Your task to perform on an android device: Clear all items from cart on ebay. Add "logitech g910" to the cart on ebay Image 0: 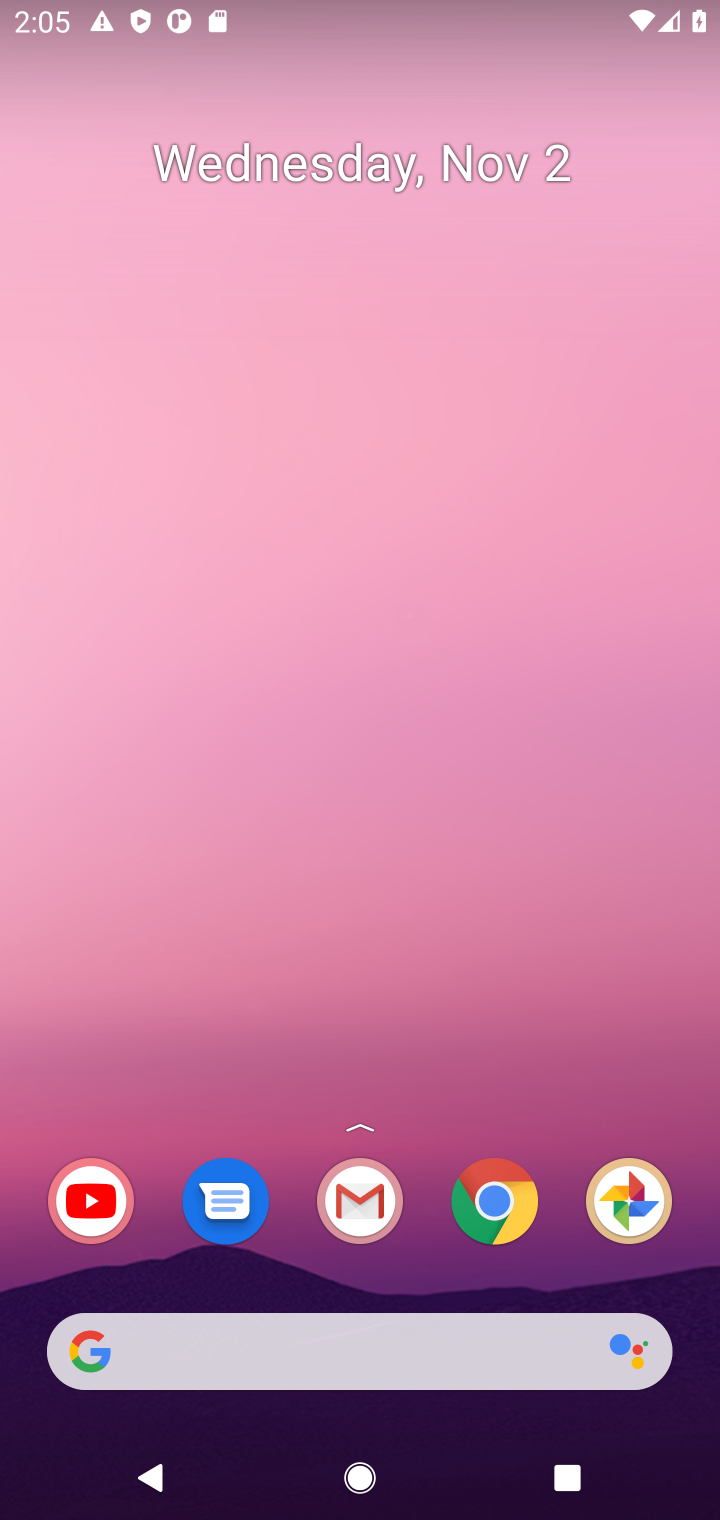
Step 0: click (501, 1193)
Your task to perform on an android device: Clear all items from cart on ebay. Add "logitech g910" to the cart on ebay Image 1: 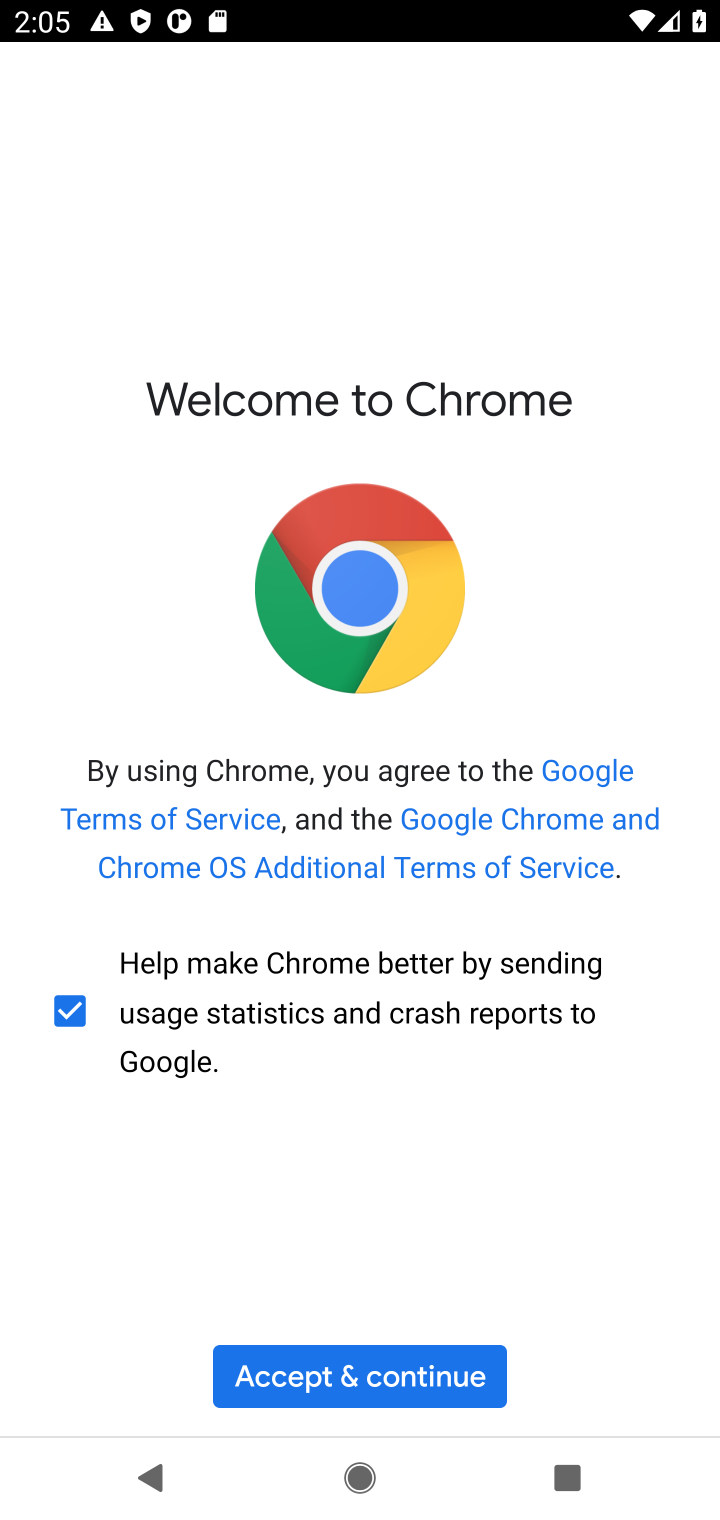
Step 1: click (394, 1374)
Your task to perform on an android device: Clear all items from cart on ebay. Add "logitech g910" to the cart on ebay Image 2: 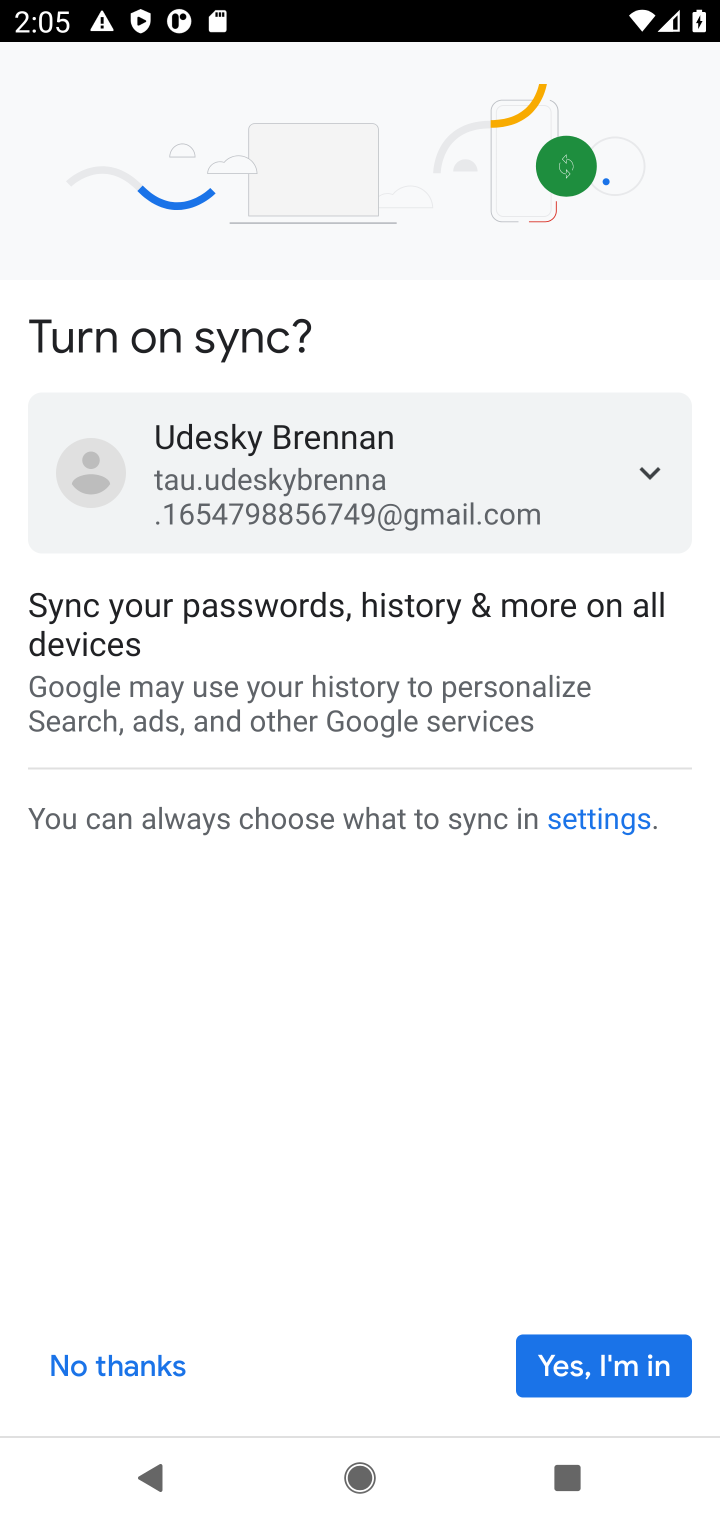
Step 2: click (629, 1357)
Your task to perform on an android device: Clear all items from cart on ebay. Add "logitech g910" to the cart on ebay Image 3: 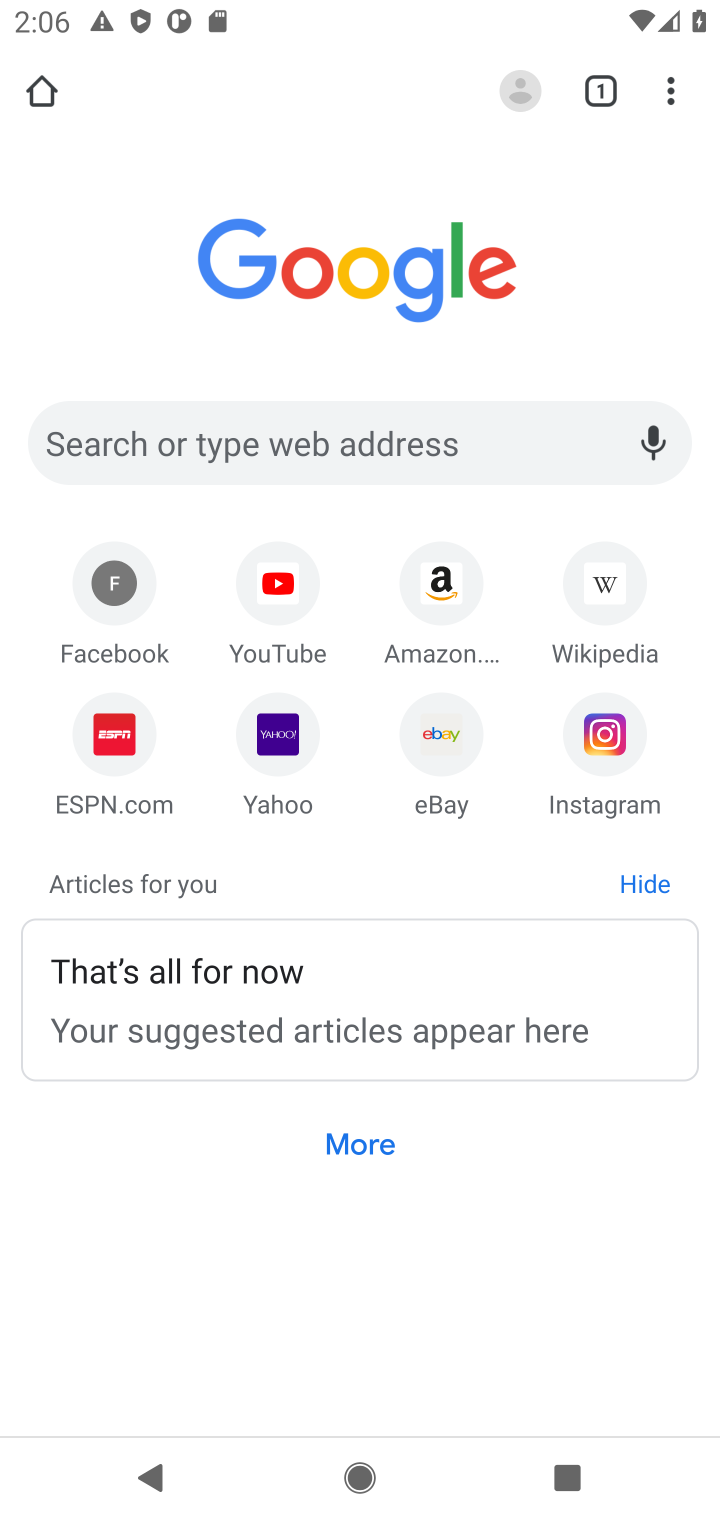
Step 3: click (352, 456)
Your task to perform on an android device: Clear all items from cart on ebay. Add "logitech g910" to the cart on ebay Image 4: 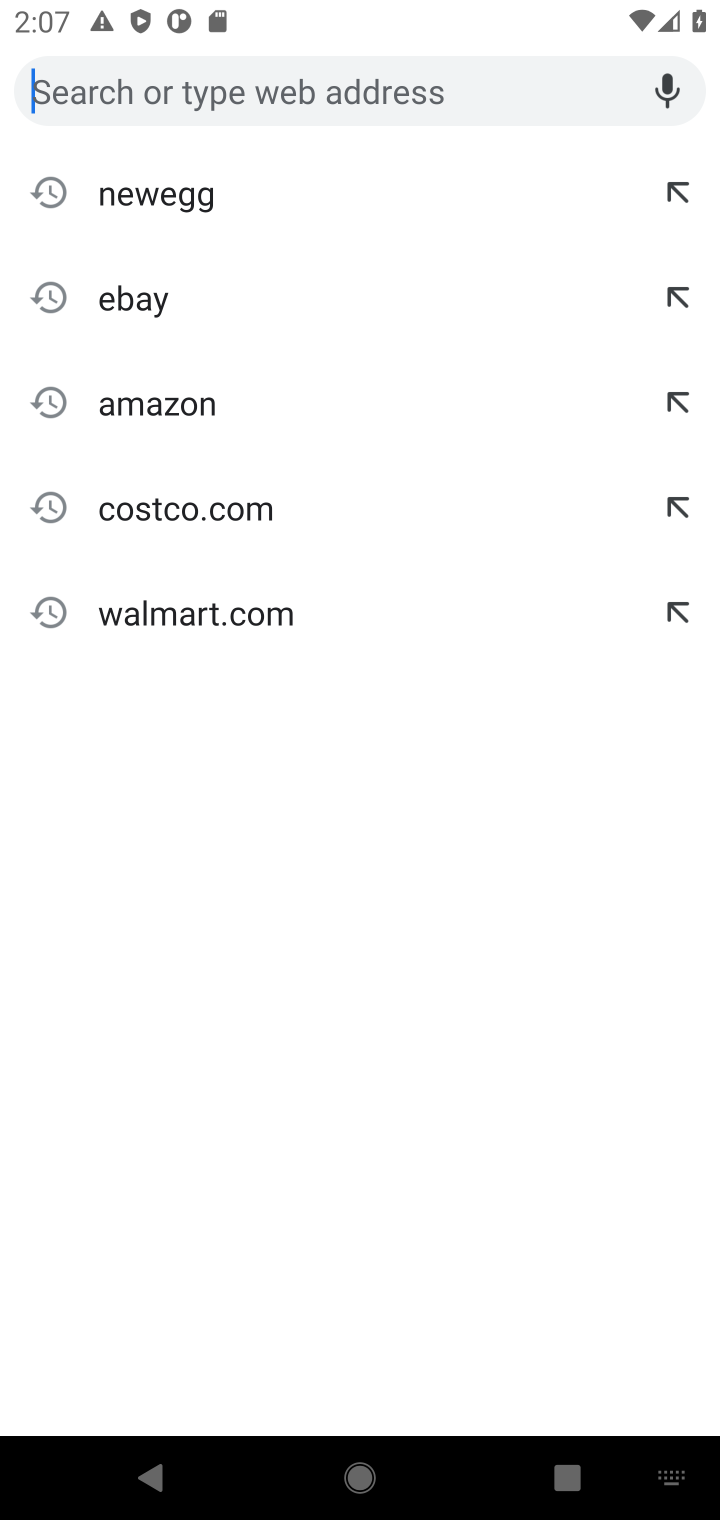
Step 4: click (123, 291)
Your task to perform on an android device: Clear all items from cart on ebay. Add "logitech g910" to the cart on ebay Image 5: 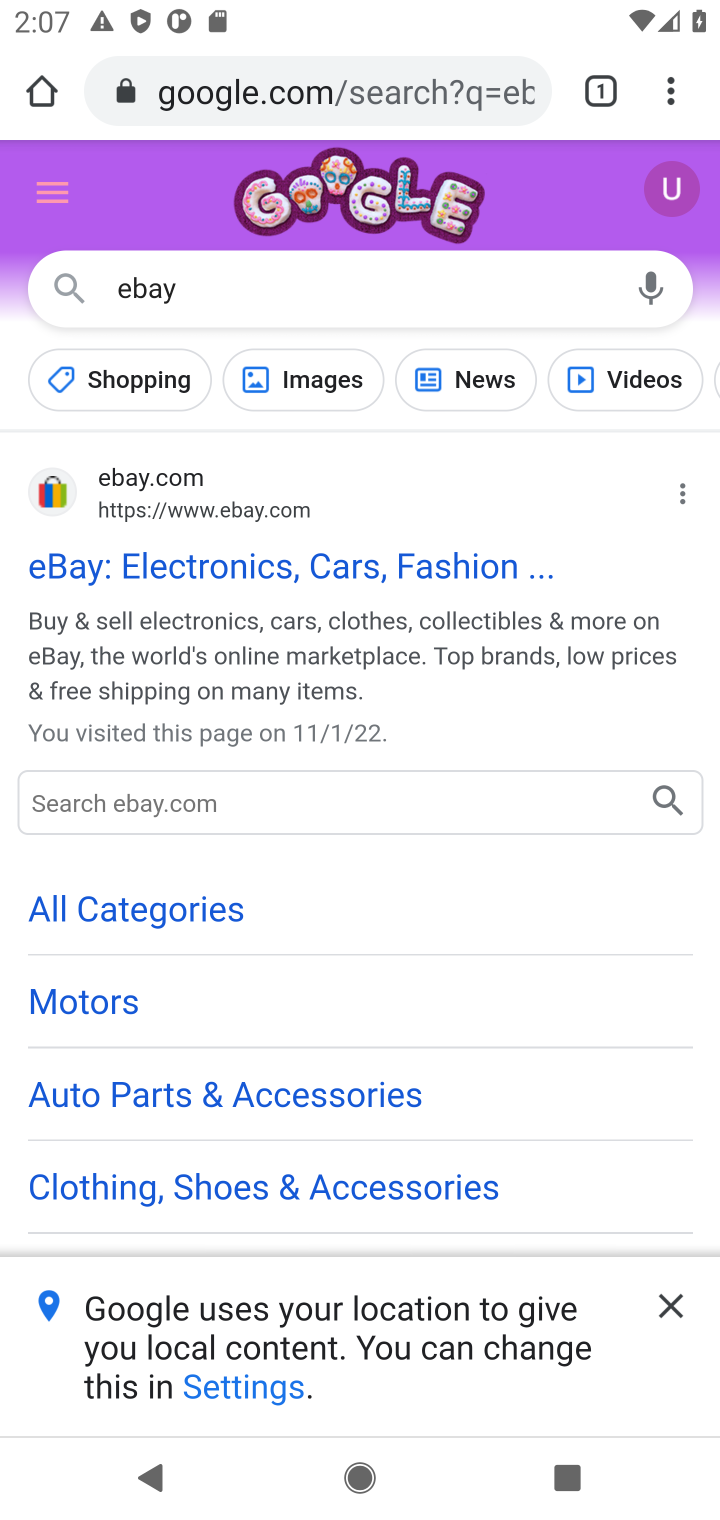
Step 5: click (330, 561)
Your task to perform on an android device: Clear all items from cart on ebay. Add "logitech g910" to the cart on ebay Image 6: 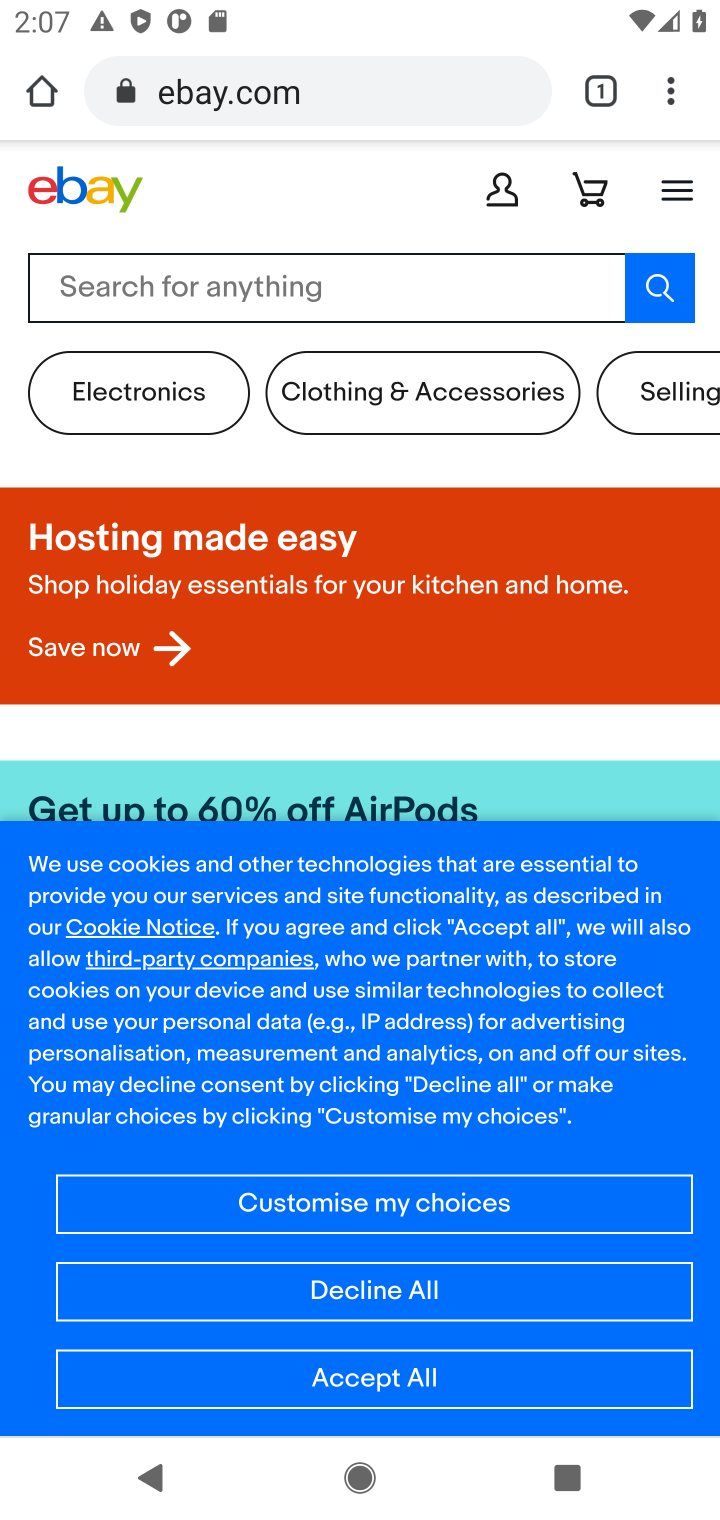
Step 6: click (376, 1379)
Your task to perform on an android device: Clear all items from cart on ebay. Add "logitech g910" to the cart on ebay Image 7: 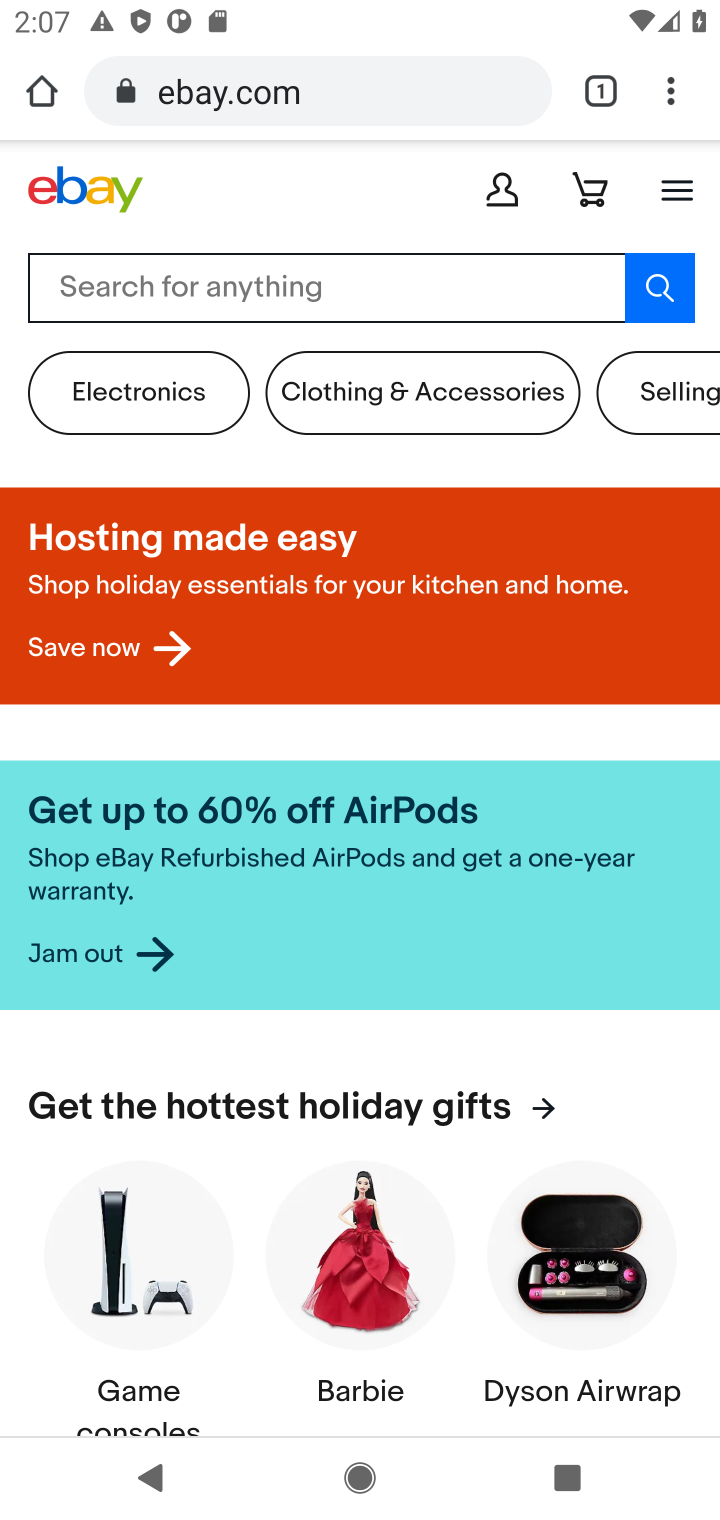
Step 7: click (370, 283)
Your task to perform on an android device: Clear all items from cart on ebay. Add "logitech g910" to the cart on ebay Image 8: 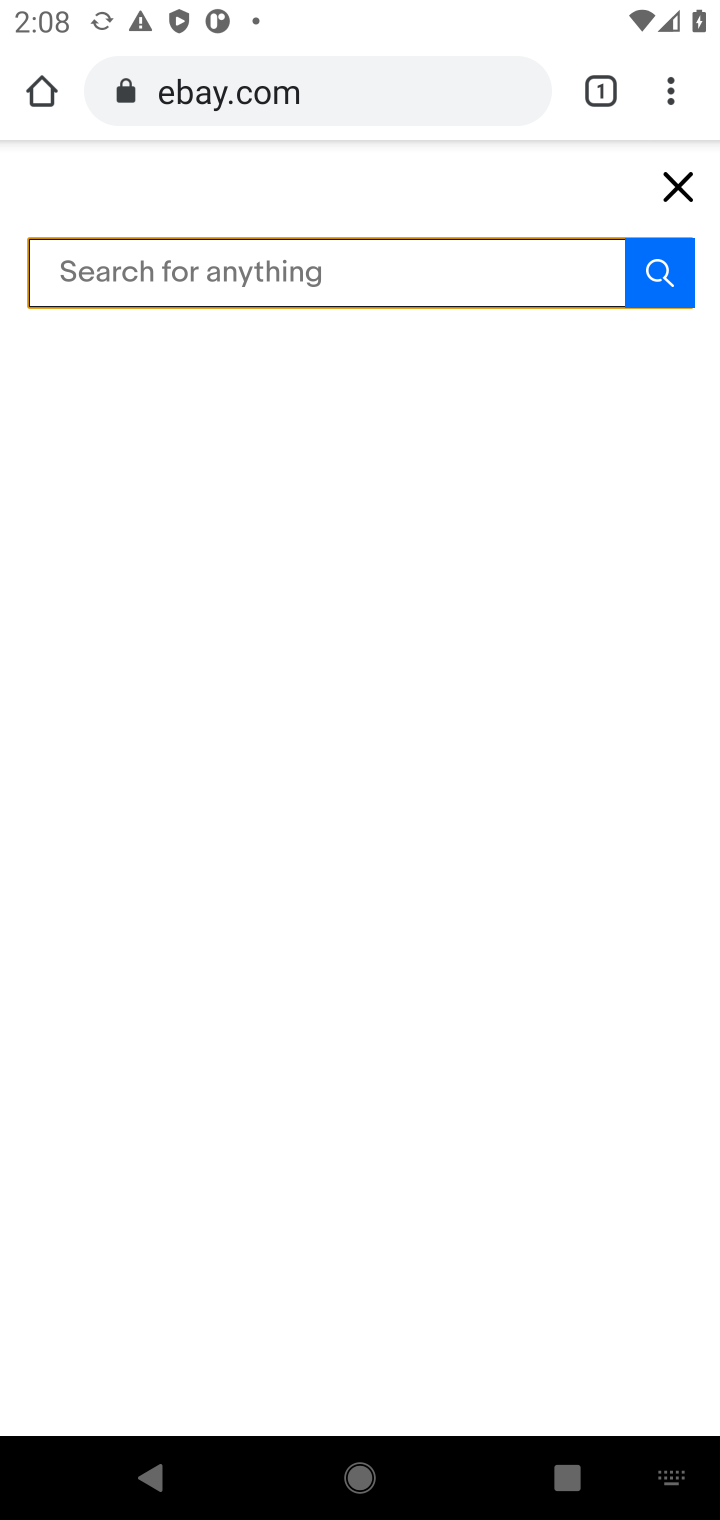
Step 8: press enter
Your task to perform on an android device: Clear all items from cart on ebay. Add "logitech g910" to the cart on ebay Image 9: 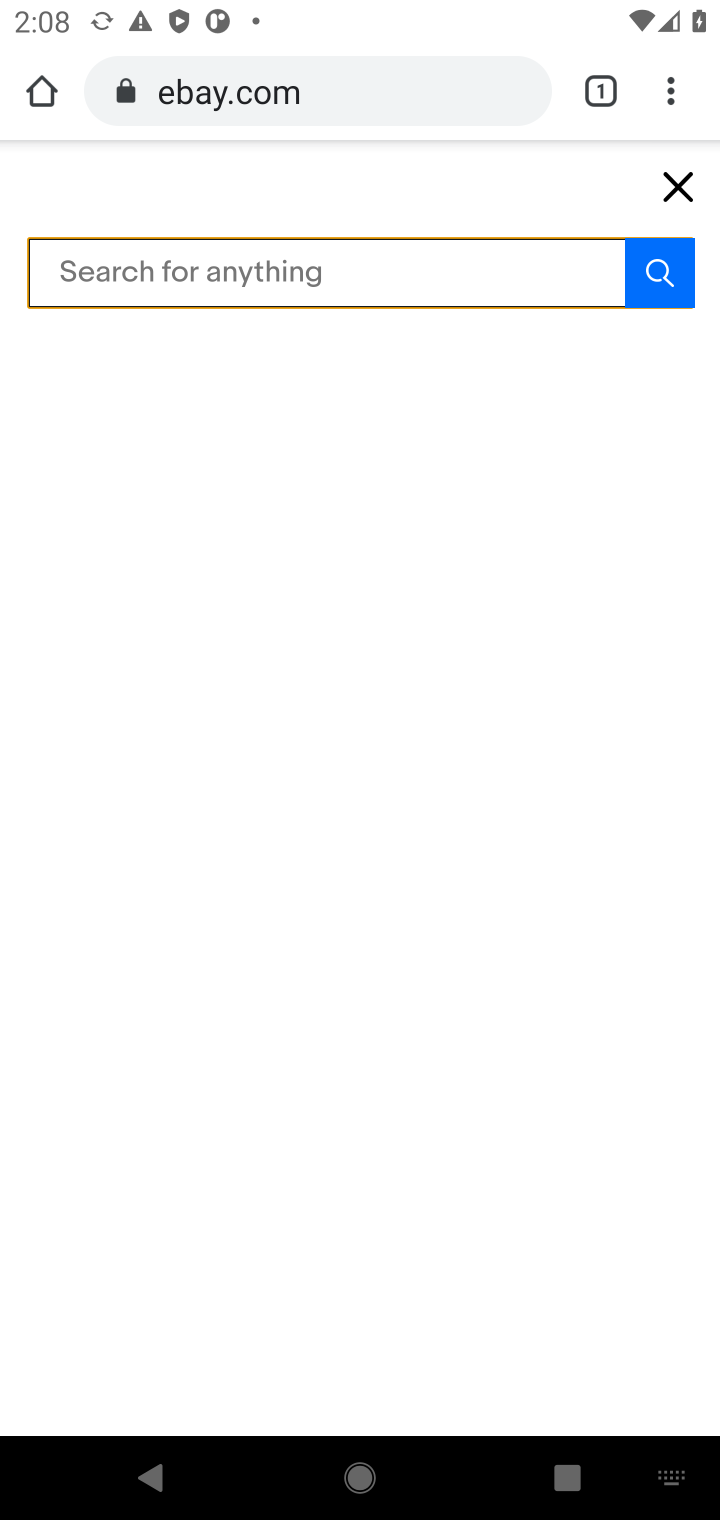
Step 9: type "logitech g910"
Your task to perform on an android device: Clear all items from cart on ebay. Add "logitech g910" to the cart on ebay Image 10: 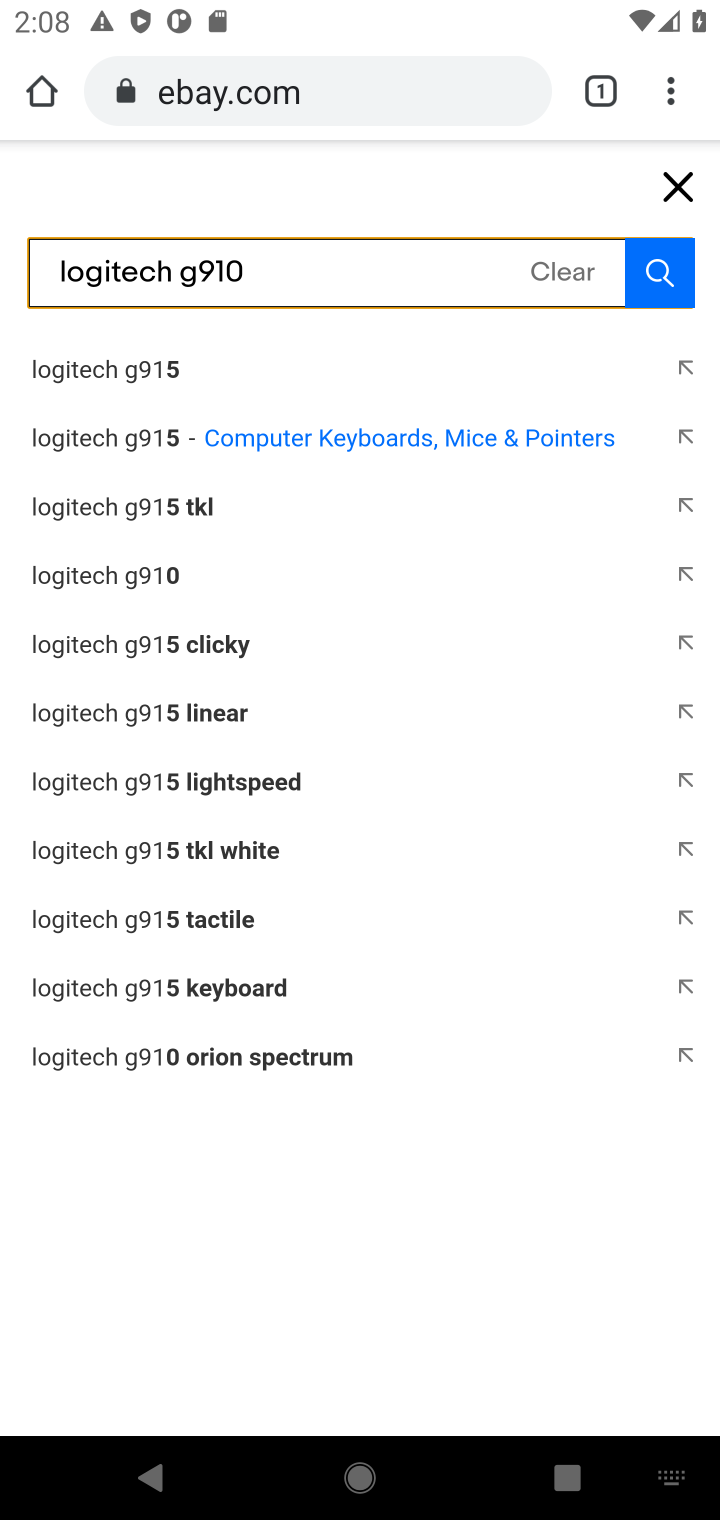
Step 10: press enter
Your task to perform on an android device: Clear all items from cart on ebay. Add "logitech g910" to the cart on ebay Image 11: 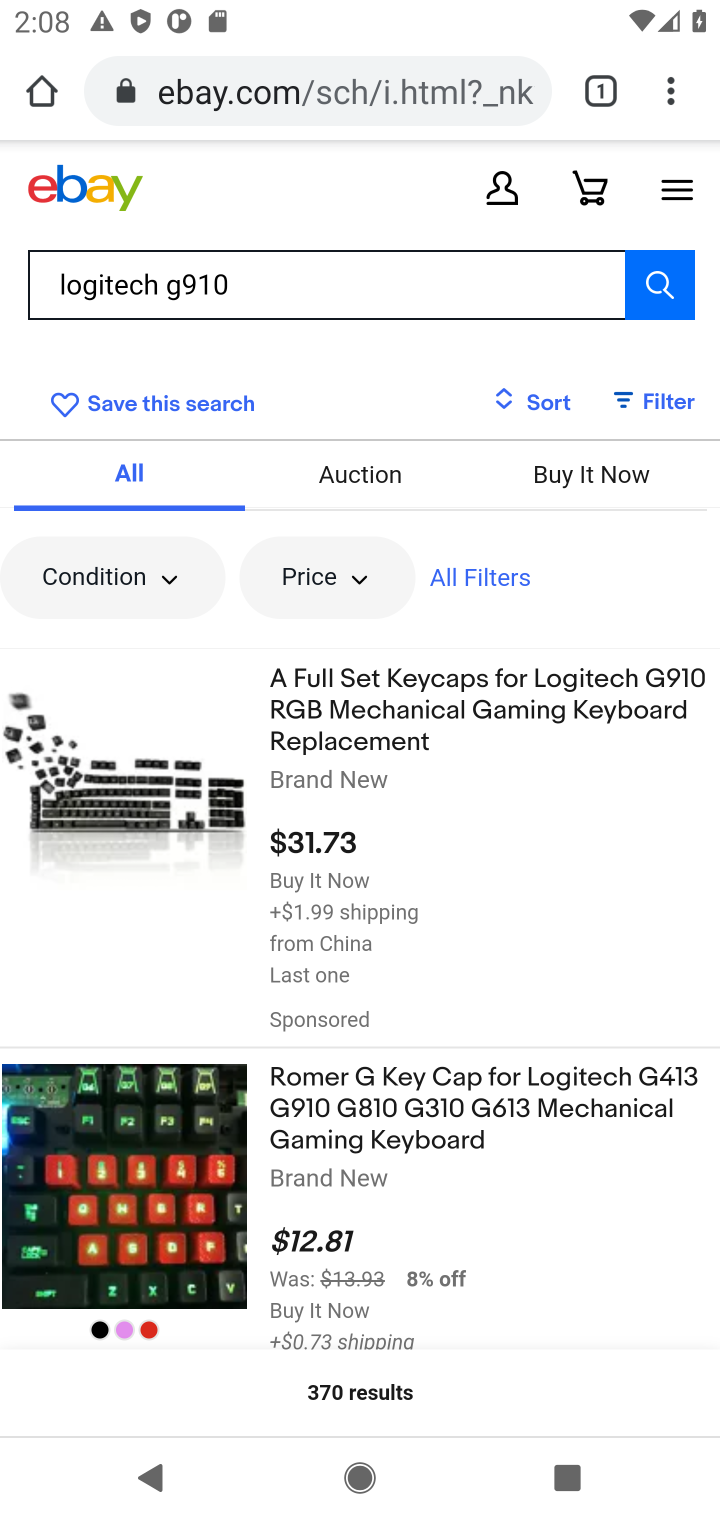
Step 11: click (446, 703)
Your task to perform on an android device: Clear all items from cart on ebay. Add "logitech g910" to the cart on ebay Image 12: 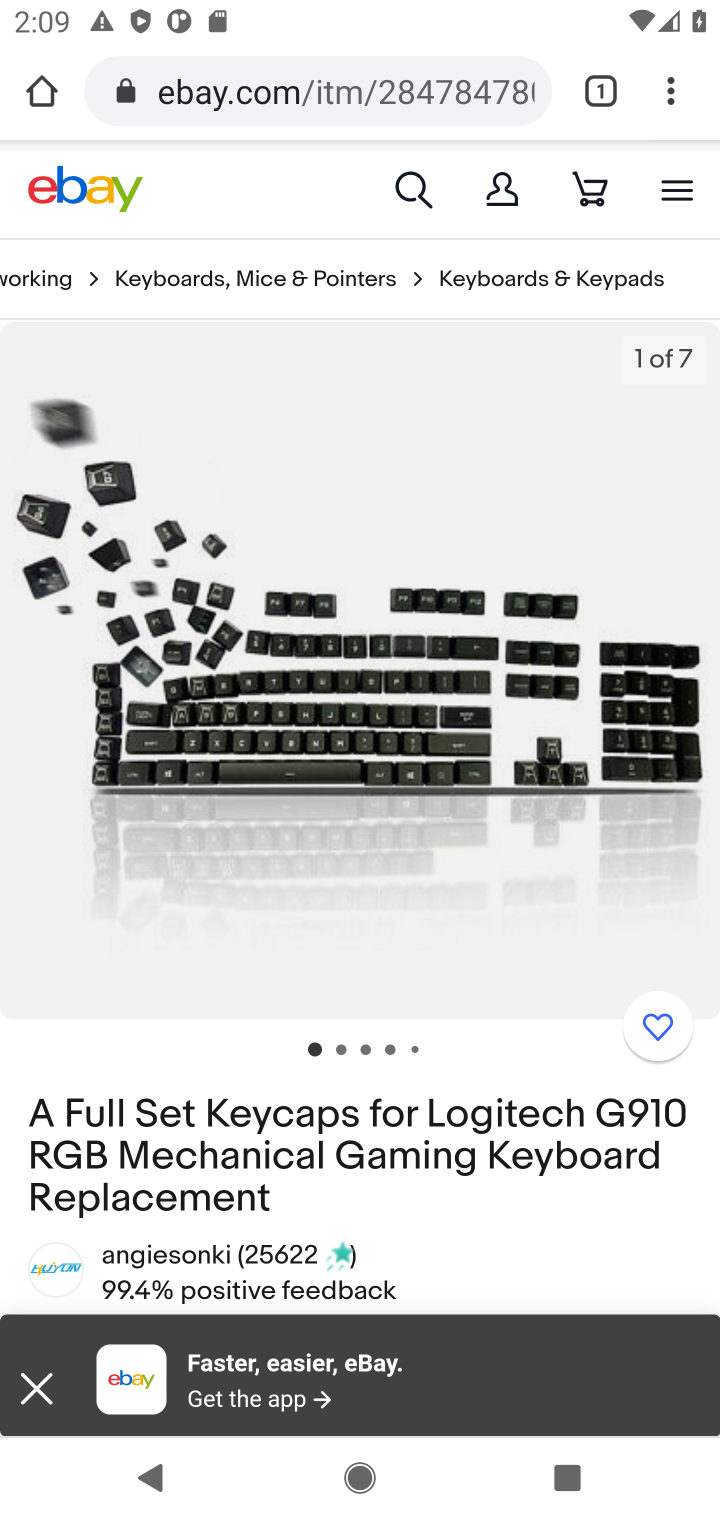
Step 12: drag from (434, 1106) to (572, 368)
Your task to perform on an android device: Clear all items from cart on ebay. Add "logitech g910" to the cart on ebay Image 13: 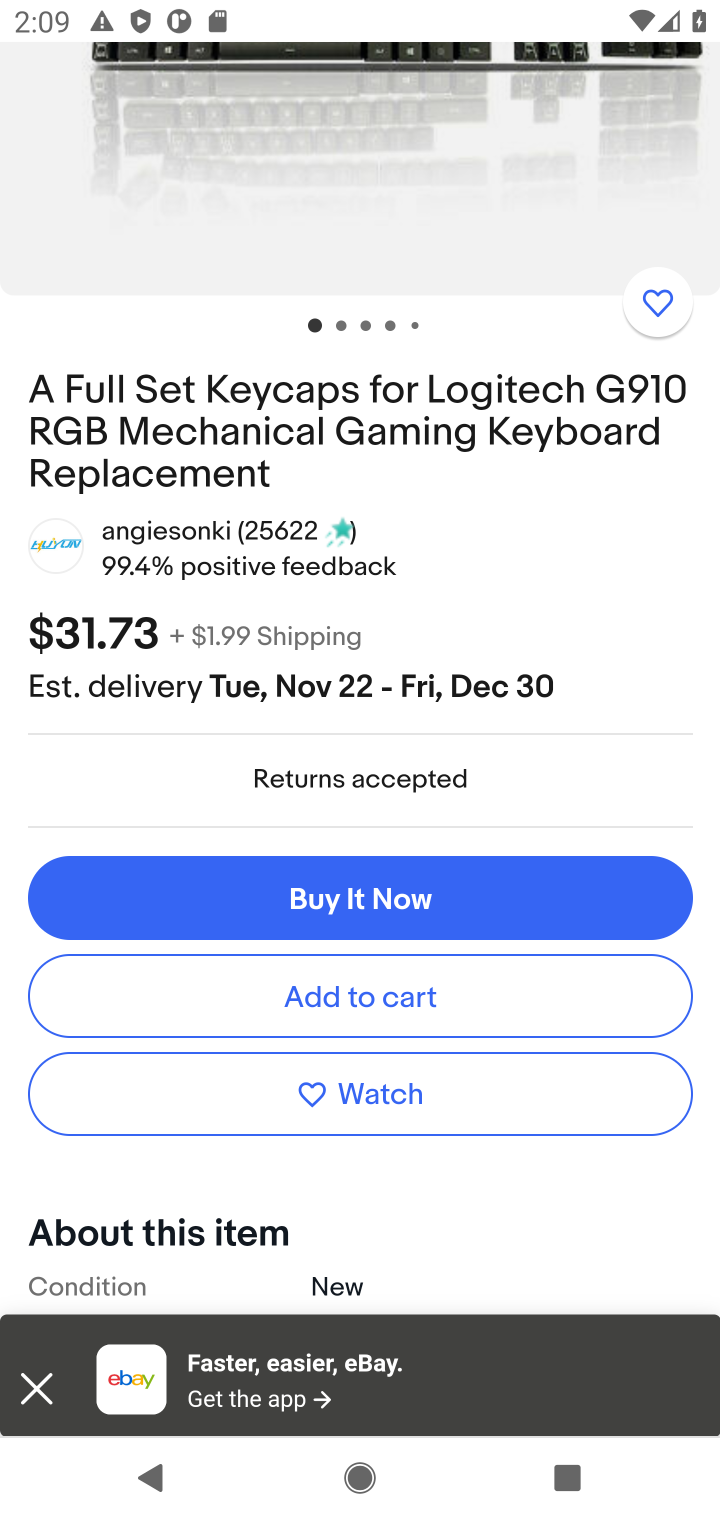
Step 13: click (361, 989)
Your task to perform on an android device: Clear all items from cart on ebay. Add "logitech g910" to the cart on ebay Image 14: 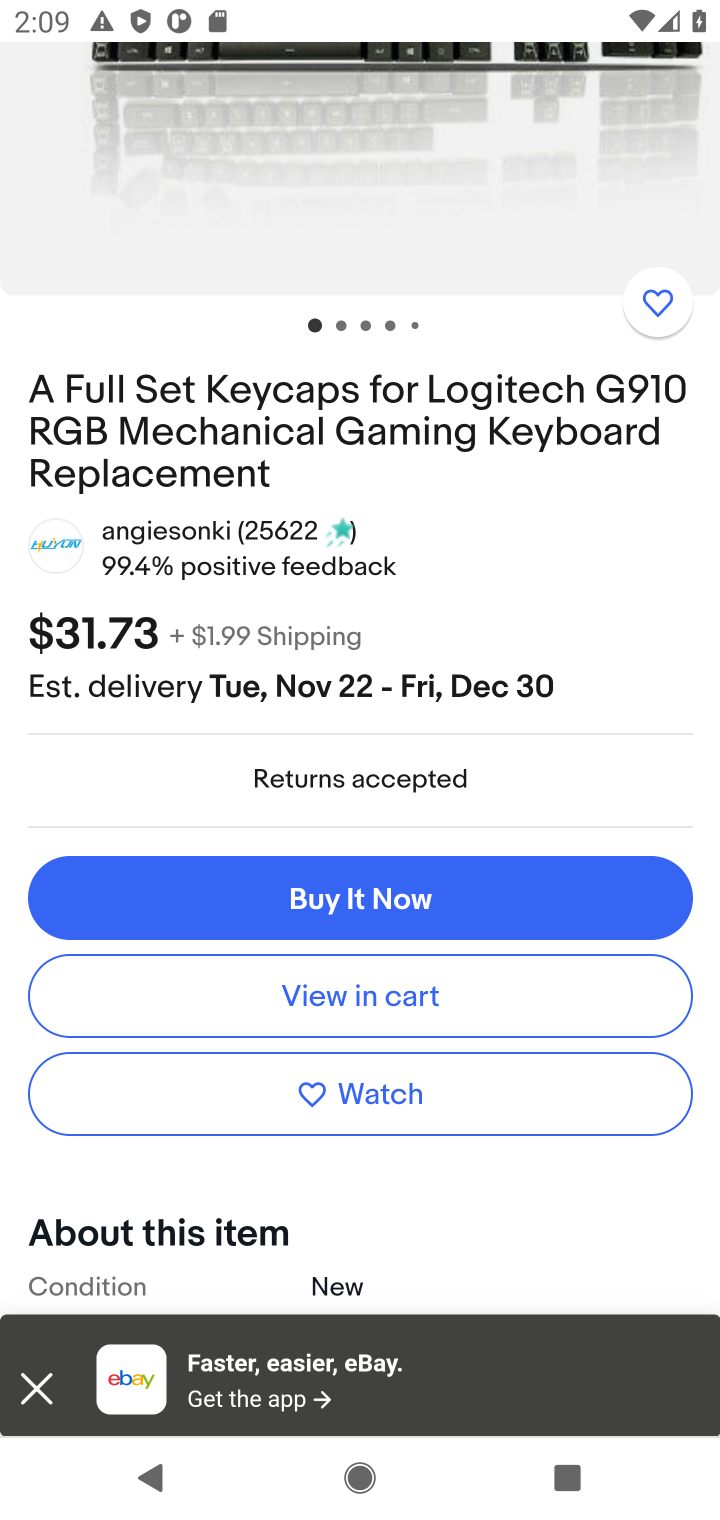
Step 14: click (358, 986)
Your task to perform on an android device: Clear all items from cart on ebay. Add "logitech g910" to the cart on ebay Image 15: 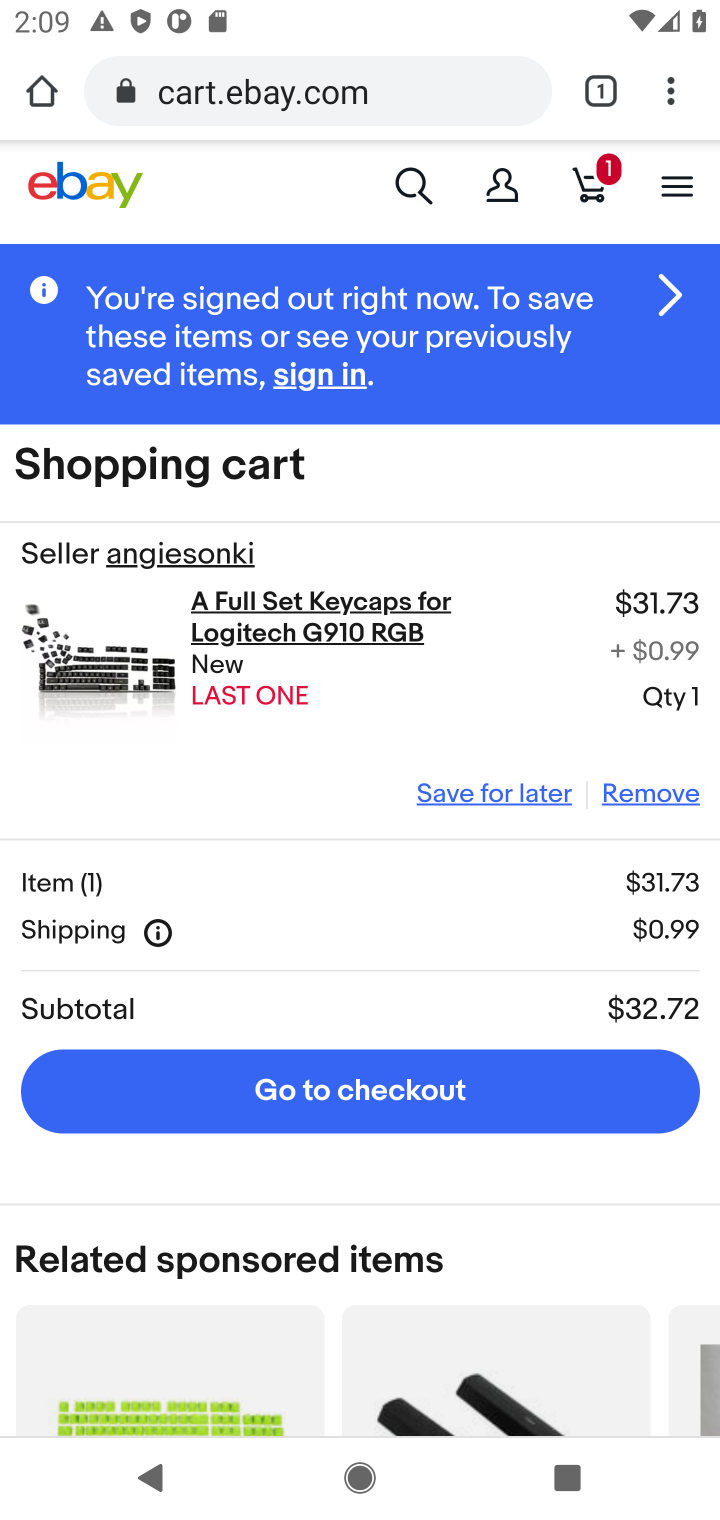
Step 15: task complete